Your task to perform on an android device: Open network settings Image 0: 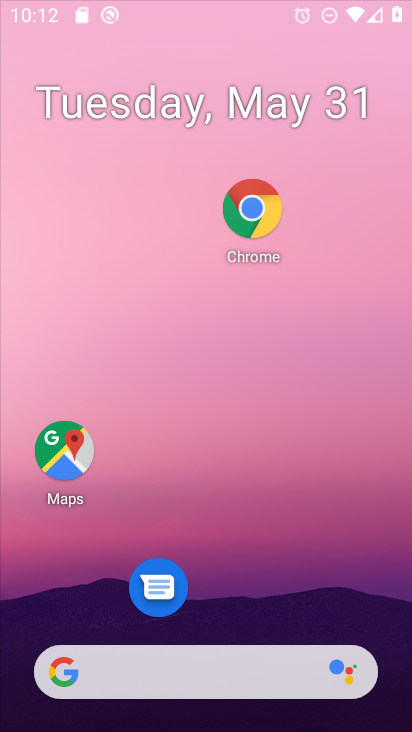
Step 0: press home button
Your task to perform on an android device: Open network settings Image 1: 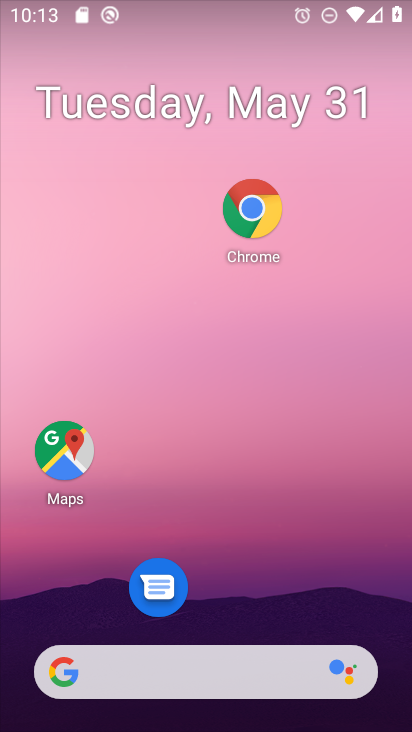
Step 1: drag from (227, 621) to (233, 5)
Your task to perform on an android device: Open network settings Image 2: 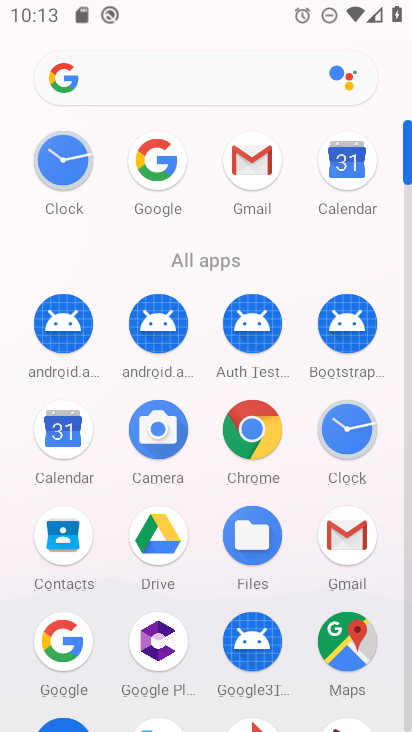
Step 2: drag from (199, 599) to (209, 70)
Your task to perform on an android device: Open network settings Image 3: 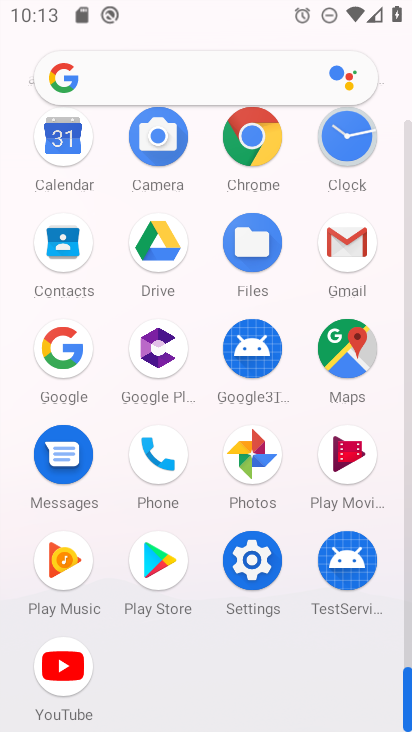
Step 3: click (251, 552)
Your task to perform on an android device: Open network settings Image 4: 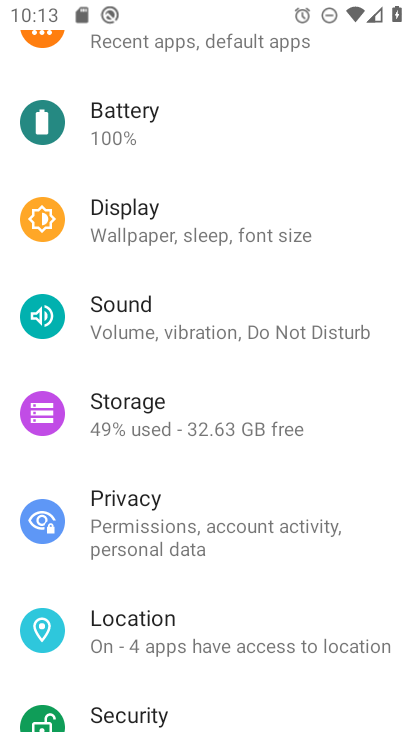
Step 4: drag from (182, 122) to (173, 730)
Your task to perform on an android device: Open network settings Image 5: 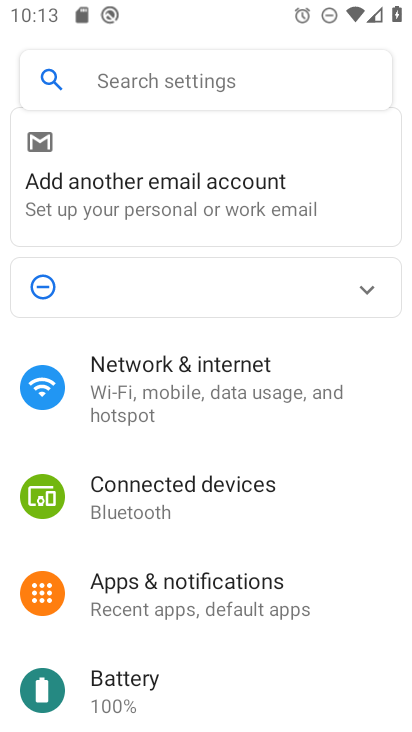
Step 5: click (192, 403)
Your task to perform on an android device: Open network settings Image 6: 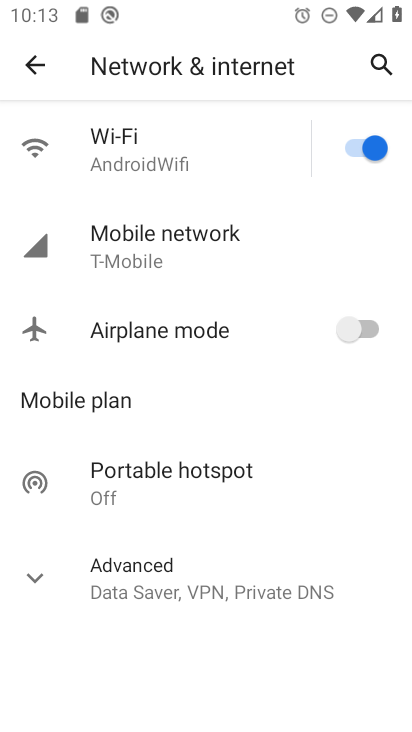
Step 6: click (37, 564)
Your task to perform on an android device: Open network settings Image 7: 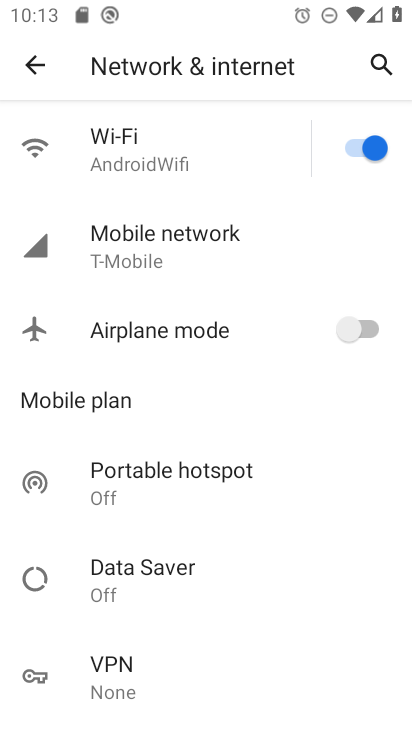
Step 7: task complete